Your task to perform on an android device: What's the weather today? Image 0: 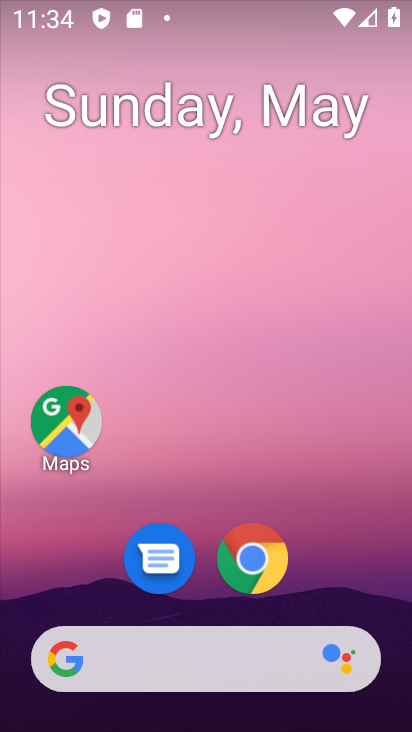
Step 0: click (214, 661)
Your task to perform on an android device: What's the weather today? Image 1: 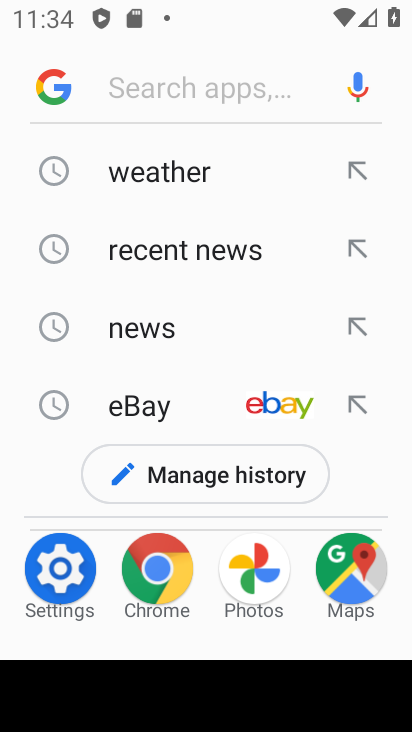
Step 1: click (194, 163)
Your task to perform on an android device: What's the weather today? Image 2: 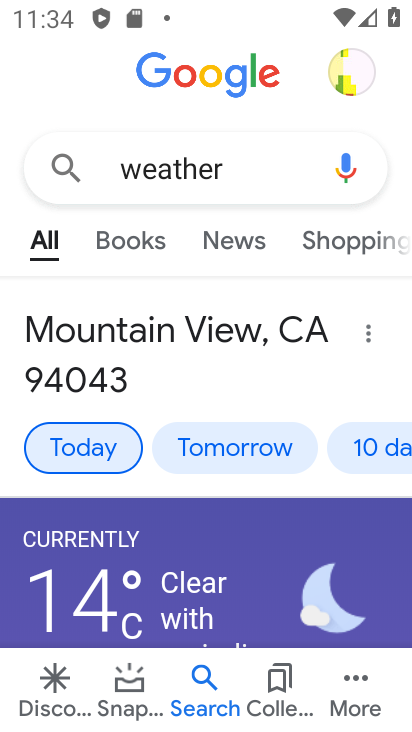
Step 2: task complete